Your task to perform on an android device: turn off javascript in the chrome app Image 0: 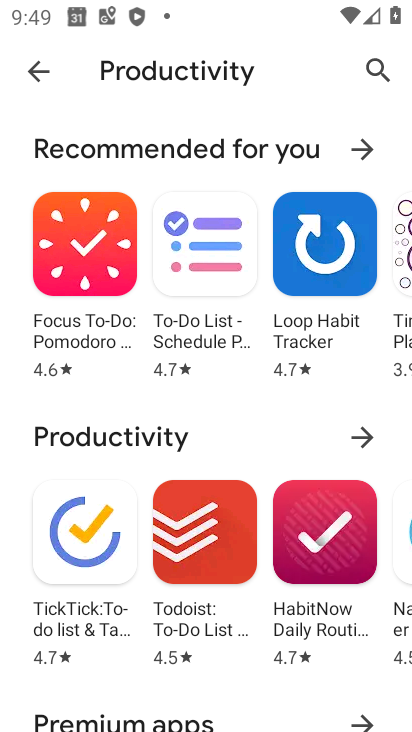
Step 0: press home button
Your task to perform on an android device: turn off javascript in the chrome app Image 1: 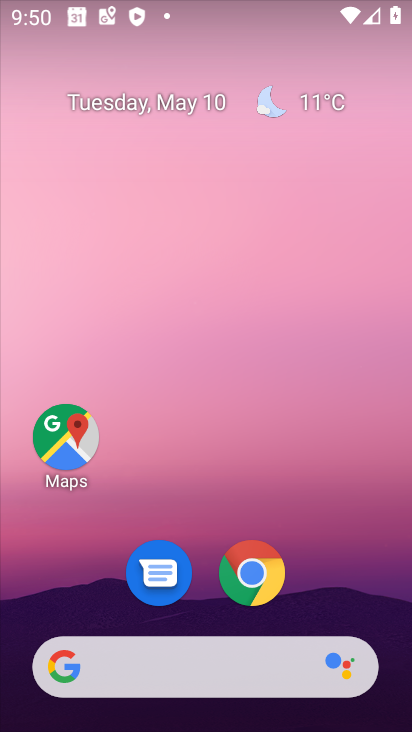
Step 1: click (255, 576)
Your task to perform on an android device: turn off javascript in the chrome app Image 2: 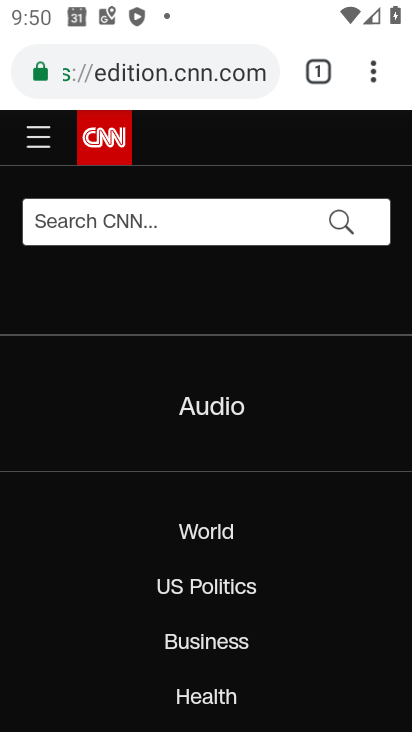
Step 2: drag from (371, 72) to (157, 575)
Your task to perform on an android device: turn off javascript in the chrome app Image 3: 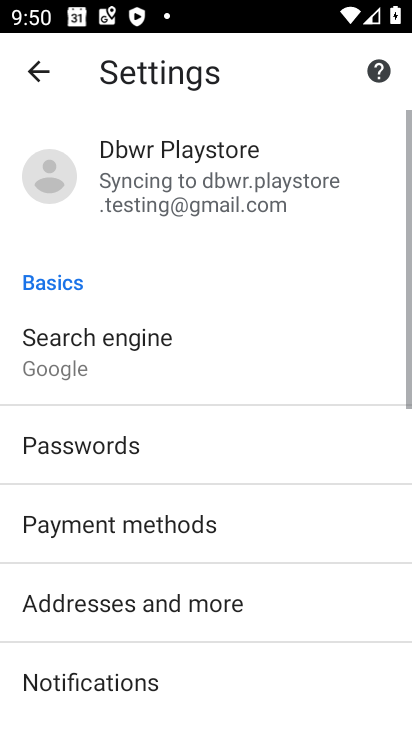
Step 3: drag from (199, 641) to (209, 212)
Your task to perform on an android device: turn off javascript in the chrome app Image 4: 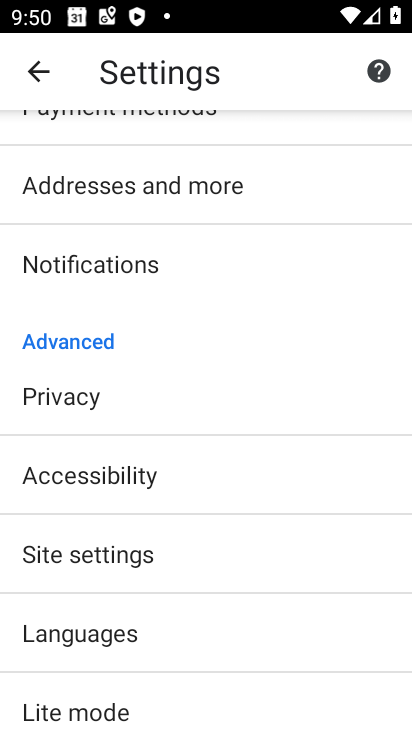
Step 4: click (89, 555)
Your task to perform on an android device: turn off javascript in the chrome app Image 5: 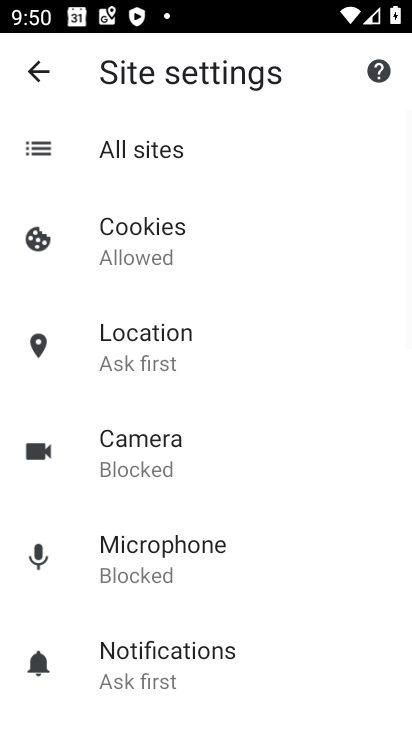
Step 5: drag from (301, 600) to (310, 392)
Your task to perform on an android device: turn off javascript in the chrome app Image 6: 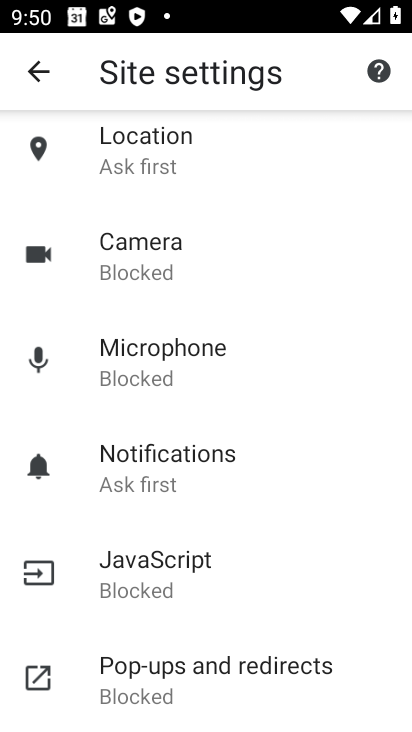
Step 6: click (126, 567)
Your task to perform on an android device: turn off javascript in the chrome app Image 7: 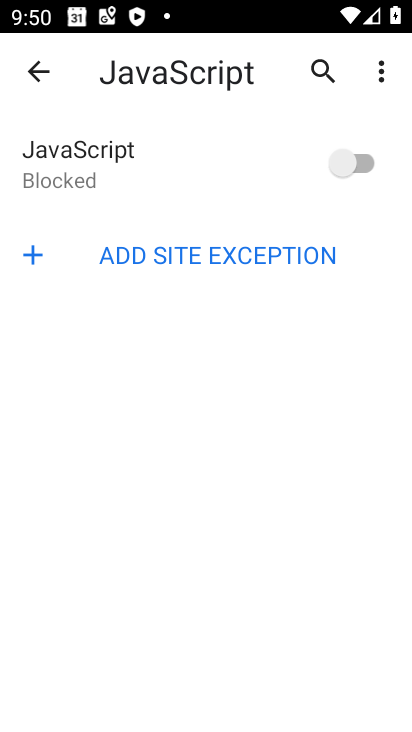
Step 7: task complete